Your task to perform on an android device: Show me popular videos on Youtube Image 0: 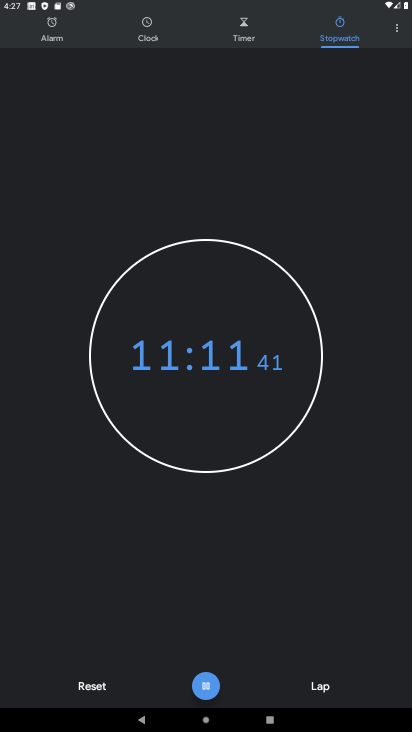
Step 0: press home button
Your task to perform on an android device: Show me popular videos on Youtube Image 1: 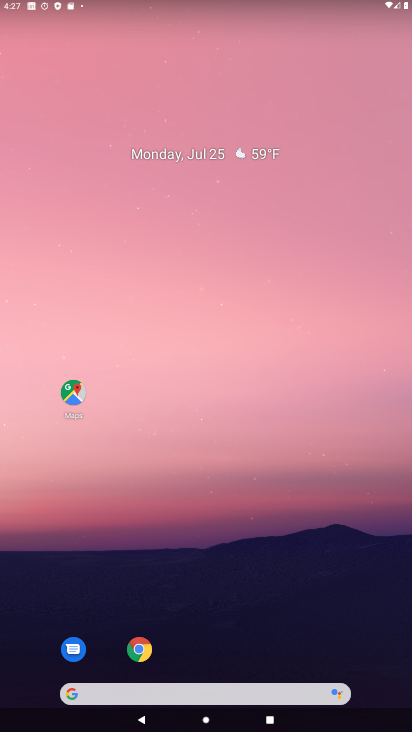
Step 1: drag from (324, 634) to (203, 96)
Your task to perform on an android device: Show me popular videos on Youtube Image 2: 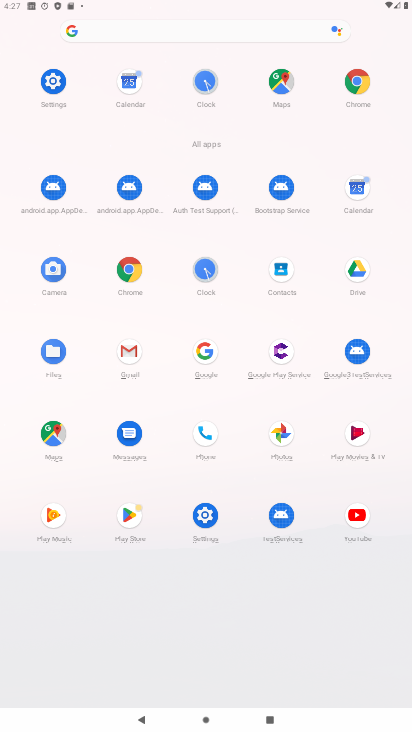
Step 2: click (365, 546)
Your task to perform on an android device: Show me popular videos on Youtube Image 3: 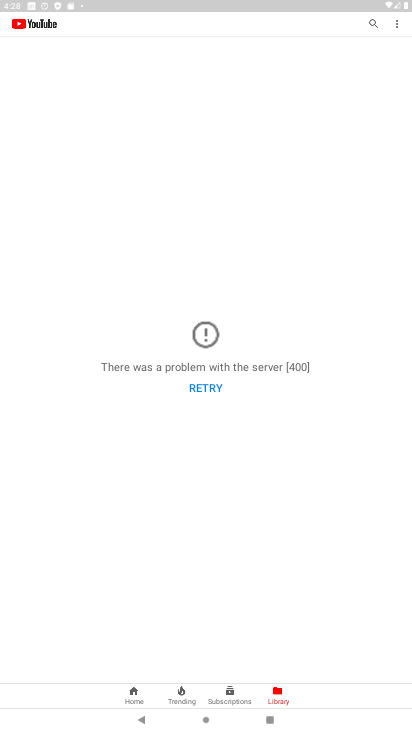
Step 3: click (137, 694)
Your task to perform on an android device: Show me popular videos on Youtube Image 4: 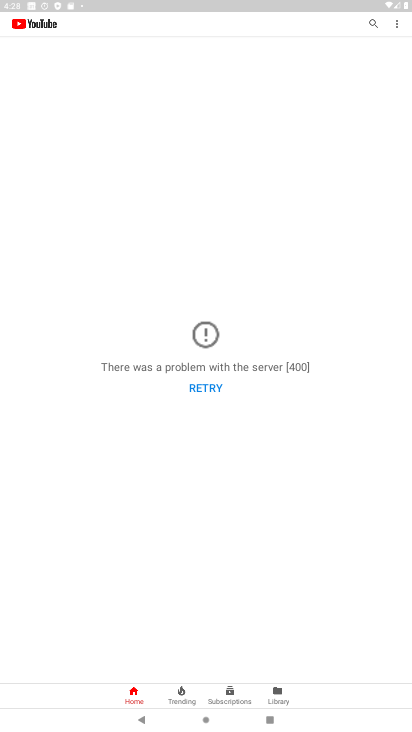
Step 4: task complete